Your task to perform on an android device: find which apps use the phone's location Image 0: 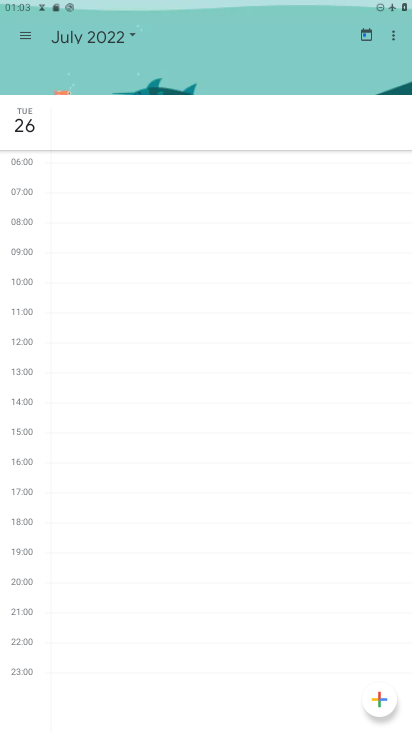
Step 0: press home button
Your task to perform on an android device: find which apps use the phone's location Image 1: 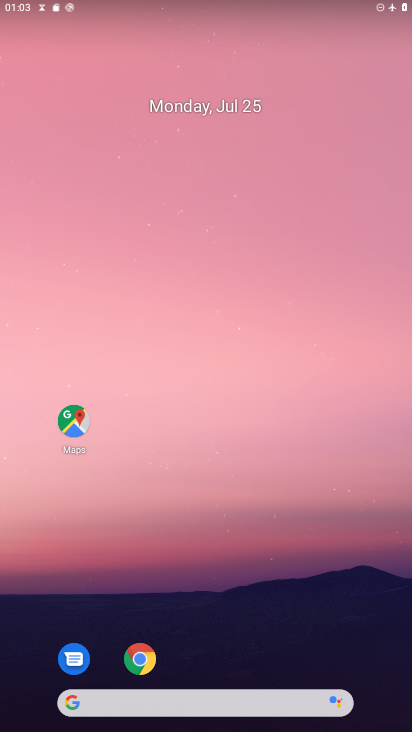
Step 1: drag from (241, 657) to (303, 251)
Your task to perform on an android device: find which apps use the phone's location Image 2: 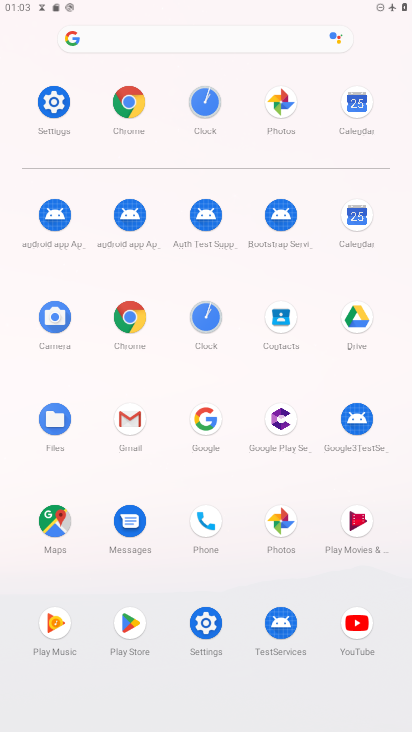
Step 2: click (215, 619)
Your task to perform on an android device: find which apps use the phone's location Image 3: 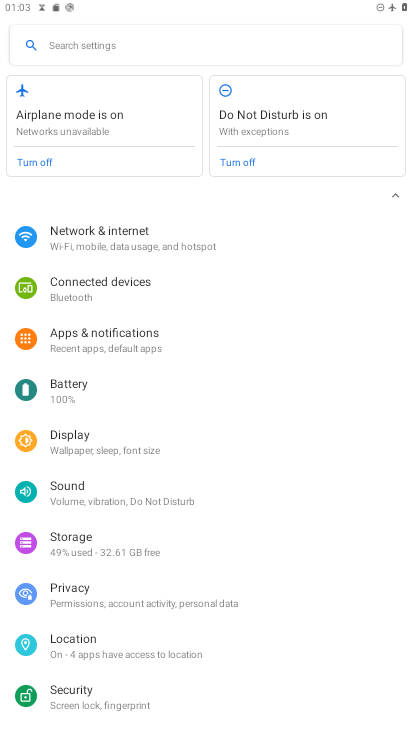
Step 3: click (131, 631)
Your task to perform on an android device: find which apps use the phone's location Image 4: 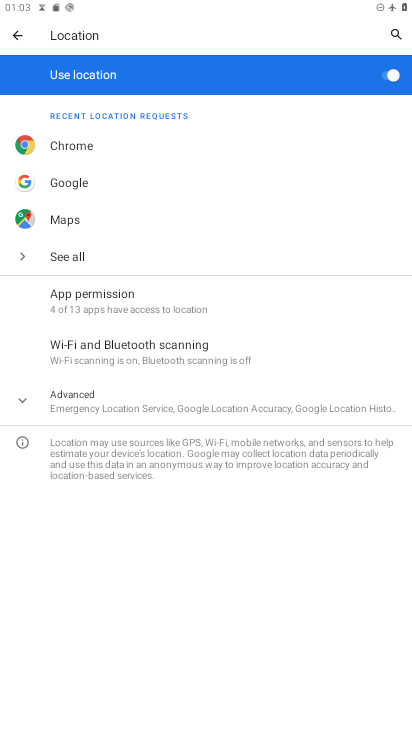
Step 4: task complete